Your task to perform on an android device: Go to wifi settings Image 0: 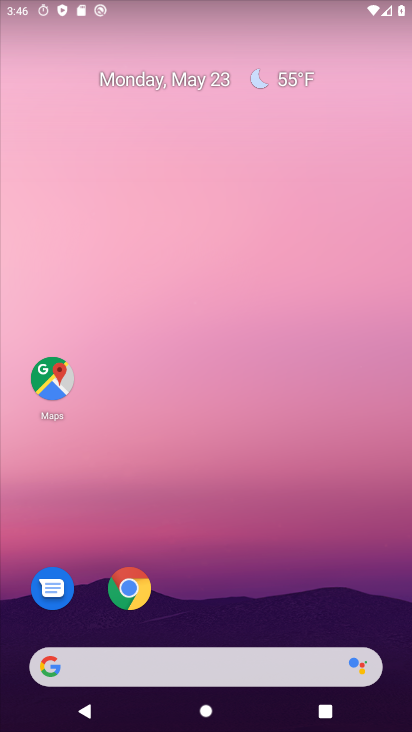
Step 0: drag from (215, 564) to (214, 44)
Your task to perform on an android device: Go to wifi settings Image 1: 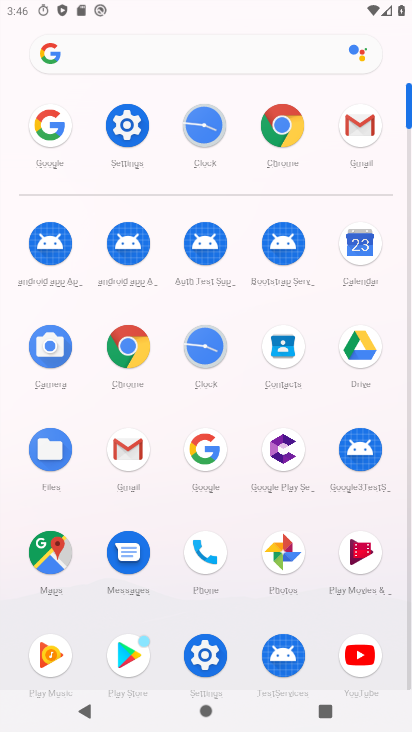
Step 1: click (121, 116)
Your task to perform on an android device: Go to wifi settings Image 2: 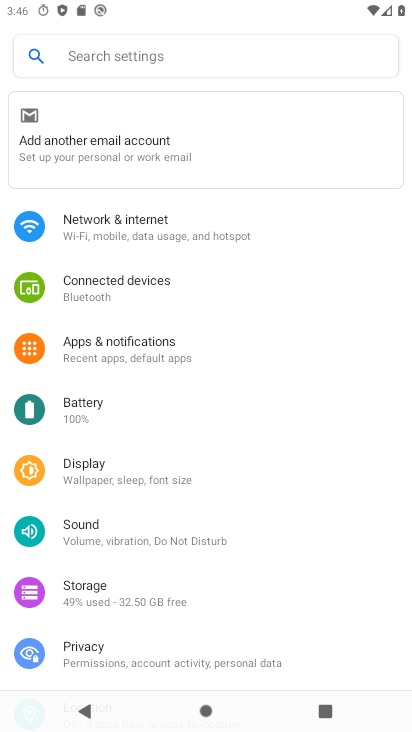
Step 2: click (165, 227)
Your task to perform on an android device: Go to wifi settings Image 3: 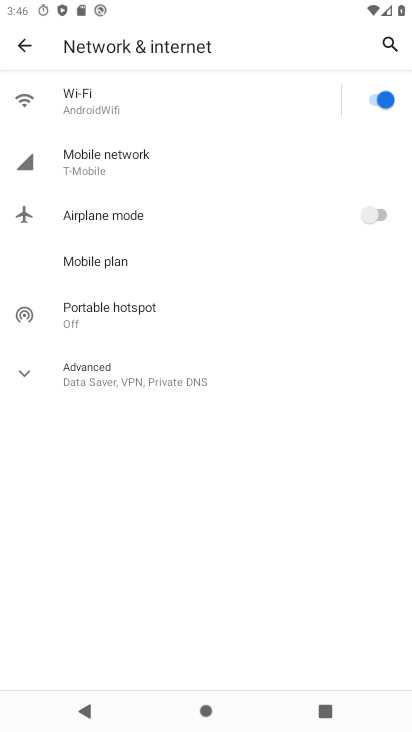
Step 3: click (145, 110)
Your task to perform on an android device: Go to wifi settings Image 4: 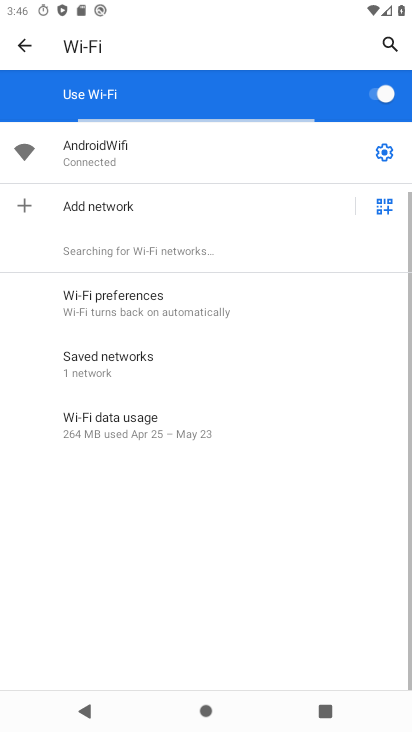
Step 4: click (404, 154)
Your task to perform on an android device: Go to wifi settings Image 5: 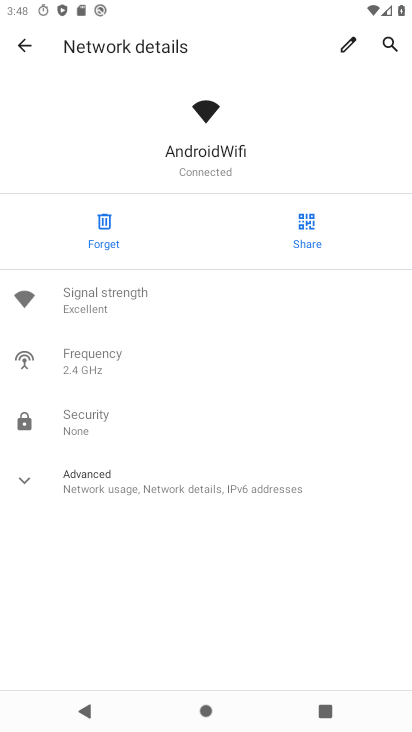
Step 5: task complete